Your task to perform on an android device: Go to Google maps Image 0: 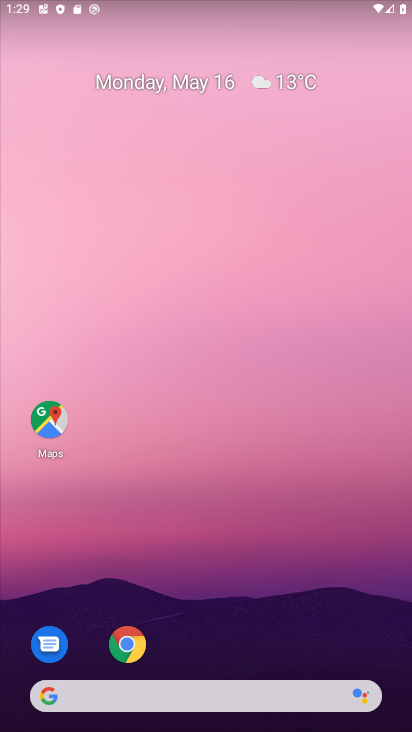
Step 0: press home button
Your task to perform on an android device: Go to Google maps Image 1: 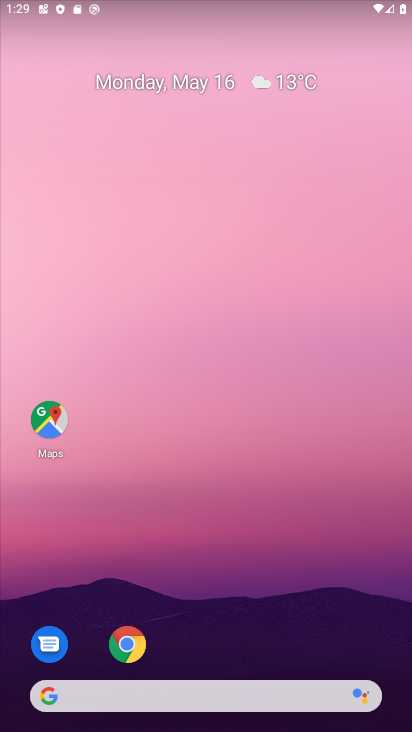
Step 1: drag from (166, 647) to (272, 150)
Your task to perform on an android device: Go to Google maps Image 2: 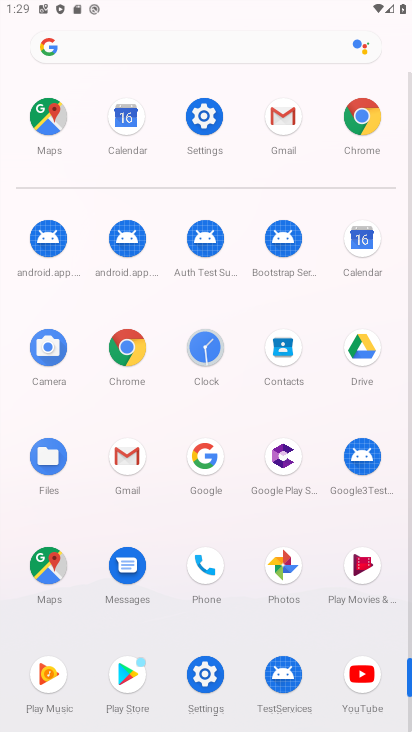
Step 2: click (287, 594)
Your task to perform on an android device: Go to Google maps Image 3: 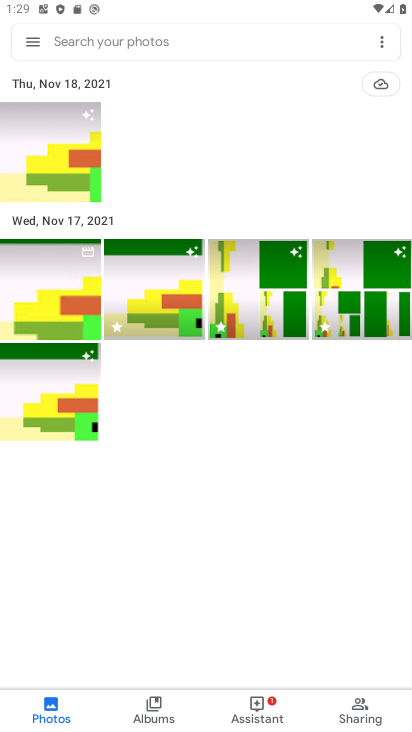
Step 3: press home button
Your task to perform on an android device: Go to Google maps Image 4: 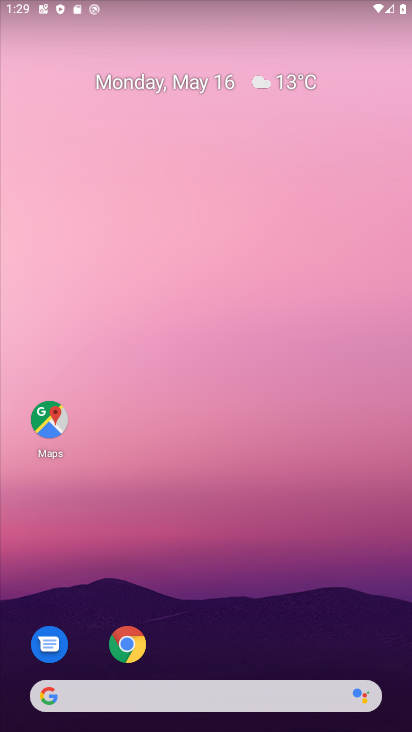
Step 4: click (50, 433)
Your task to perform on an android device: Go to Google maps Image 5: 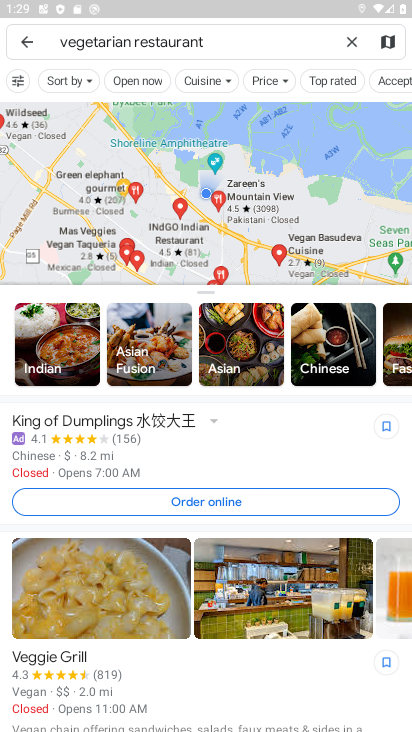
Step 5: task complete